Your task to perform on an android device: set default search engine in the chrome app Image 0: 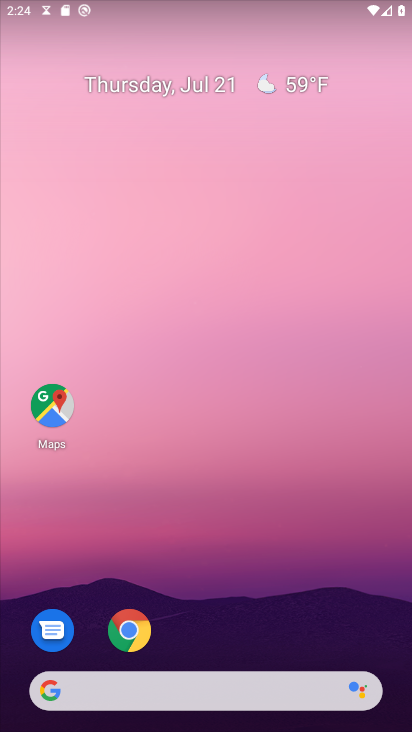
Step 0: click (130, 637)
Your task to perform on an android device: set default search engine in the chrome app Image 1: 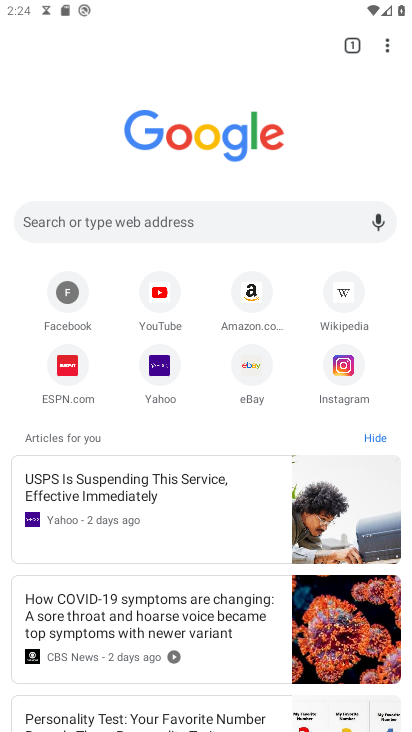
Step 1: click (382, 45)
Your task to perform on an android device: set default search engine in the chrome app Image 2: 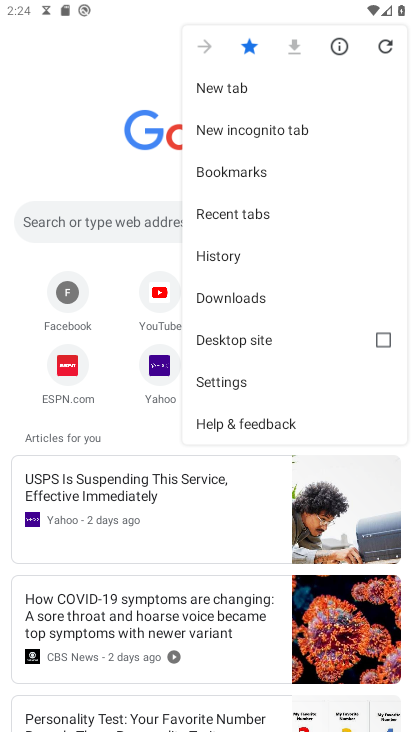
Step 2: click (224, 384)
Your task to perform on an android device: set default search engine in the chrome app Image 3: 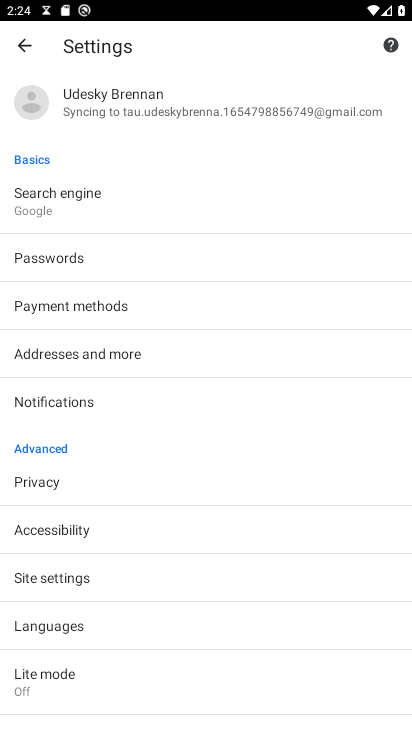
Step 3: click (62, 223)
Your task to perform on an android device: set default search engine in the chrome app Image 4: 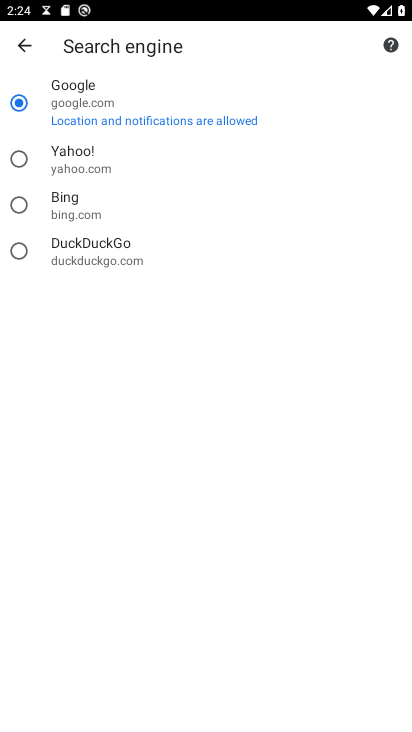
Step 4: click (16, 158)
Your task to perform on an android device: set default search engine in the chrome app Image 5: 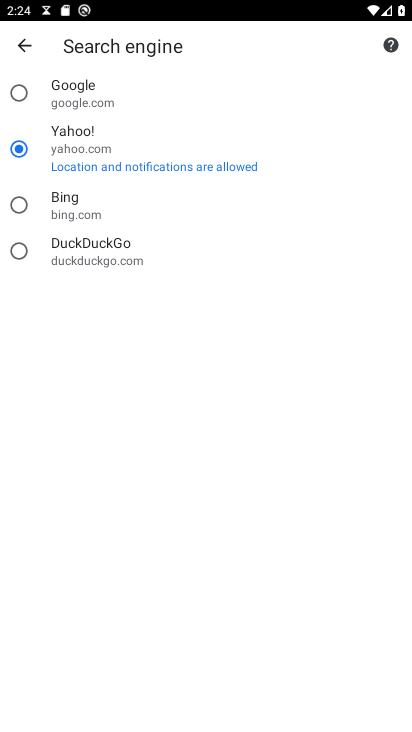
Step 5: task complete